Your task to perform on an android device: turn off notifications in google photos Image 0: 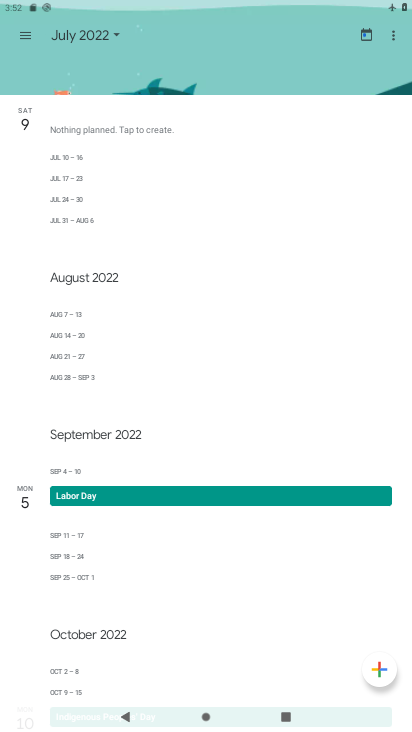
Step 0: press home button
Your task to perform on an android device: turn off notifications in google photos Image 1: 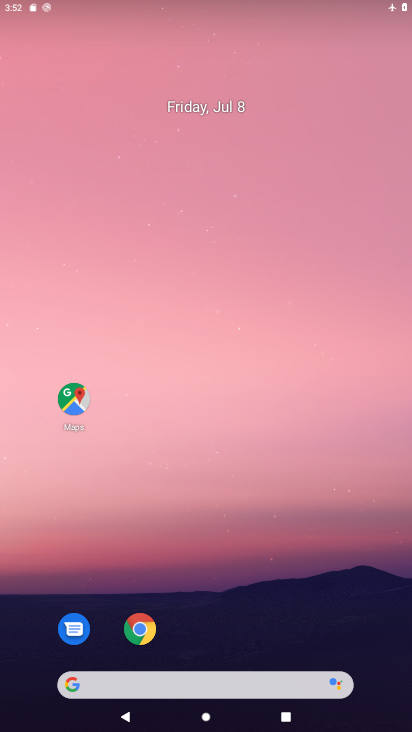
Step 1: drag from (238, 638) to (230, 299)
Your task to perform on an android device: turn off notifications in google photos Image 2: 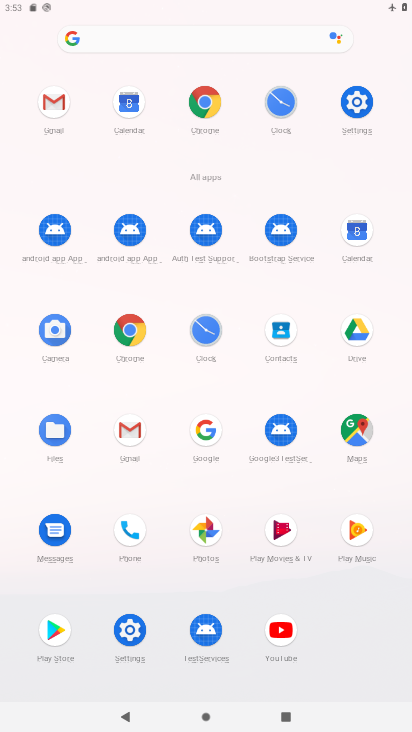
Step 2: click (208, 533)
Your task to perform on an android device: turn off notifications in google photos Image 3: 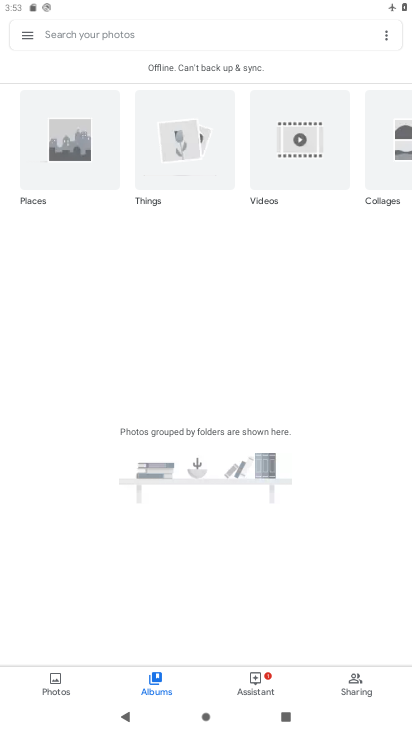
Step 3: click (395, 39)
Your task to perform on an android device: turn off notifications in google photos Image 4: 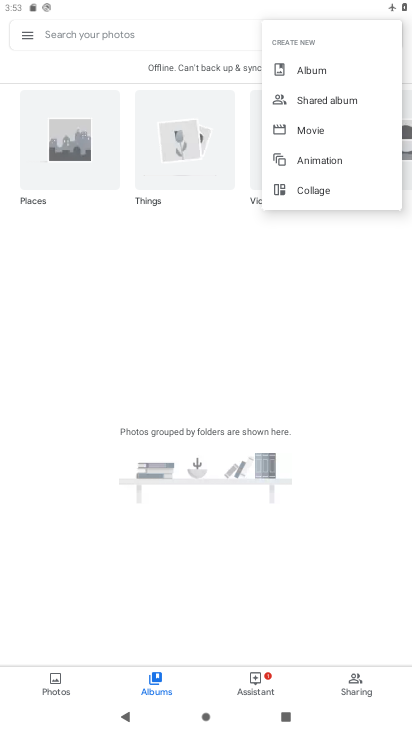
Step 4: click (326, 570)
Your task to perform on an android device: turn off notifications in google photos Image 5: 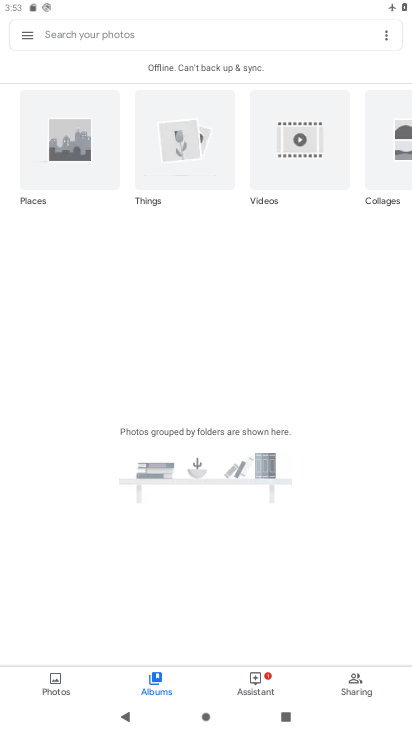
Step 5: click (28, 22)
Your task to perform on an android device: turn off notifications in google photos Image 6: 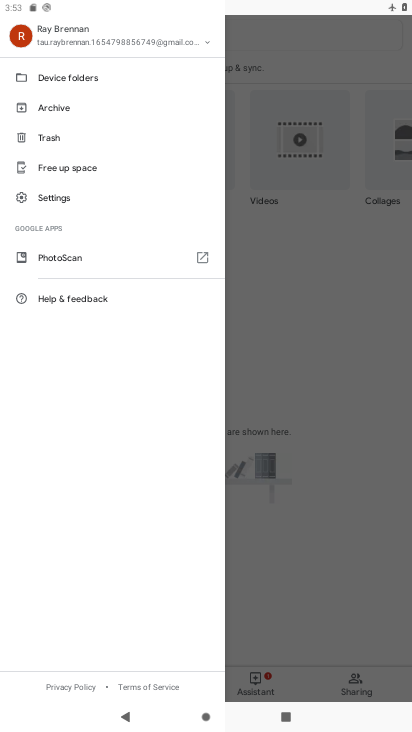
Step 6: click (56, 191)
Your task to perform on an android device: turn off notifications in google photos Image 7: 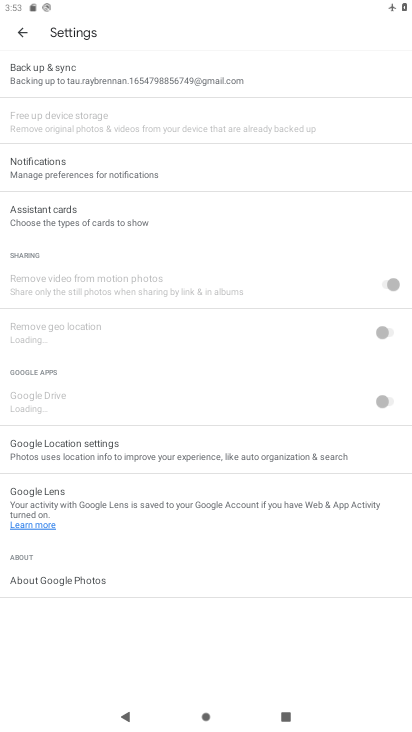
Step 7: click (84, 153)
Your task to perform on an android device: turn off notifications in google photos Image 8: 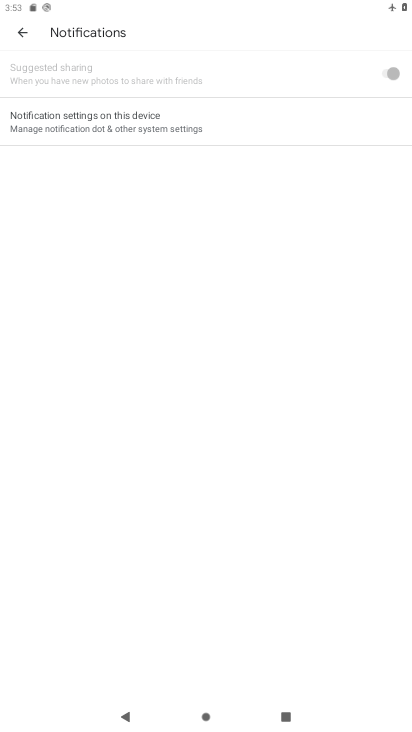
Step 8: click (346, 111)
Your task to perform on an android device: turn off notifications in google photos Image 9: 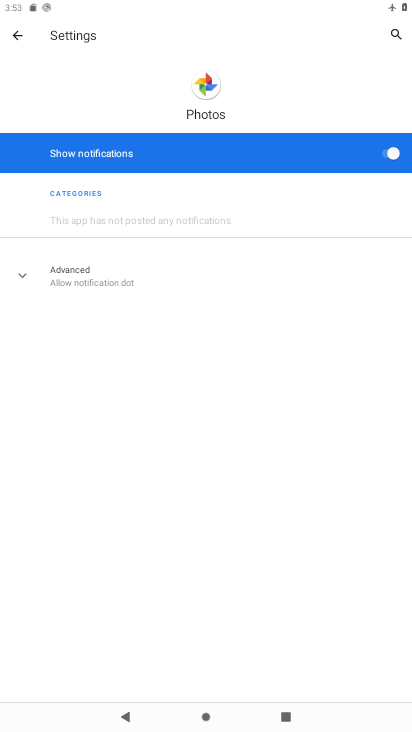
Step 9: click (388, 159)
Your task to perform on an android device: turn off notifications in google photos Image 10: 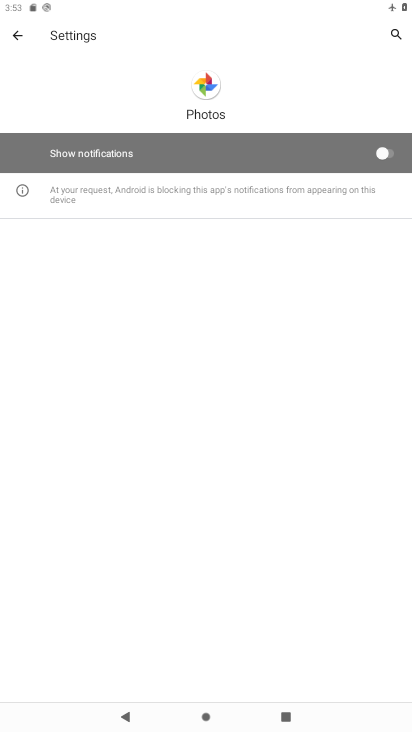
Step 10: task complete